Your task to perform on an android device: toggle notification dots Image 0: 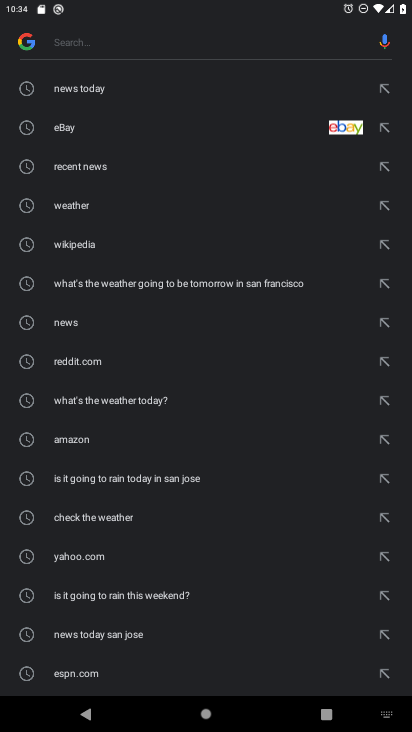
Step 0: press home button
Your task to perform on an android device: toggle notification dots Image 1: 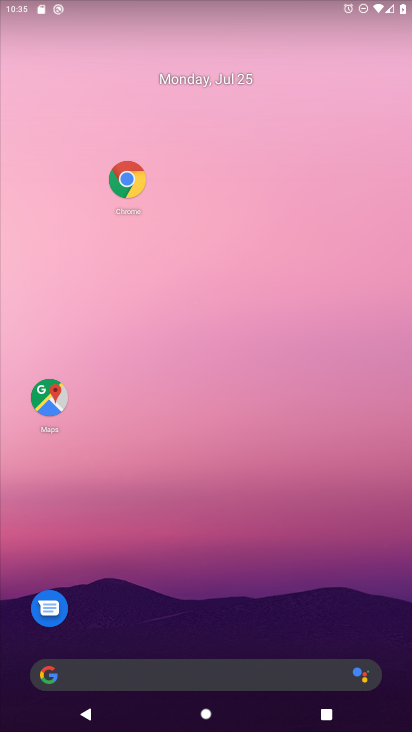
Step 1: drag from (114, 676) to (372, 12)
Your task to perform on an android device: toggle notification dots Image 2: 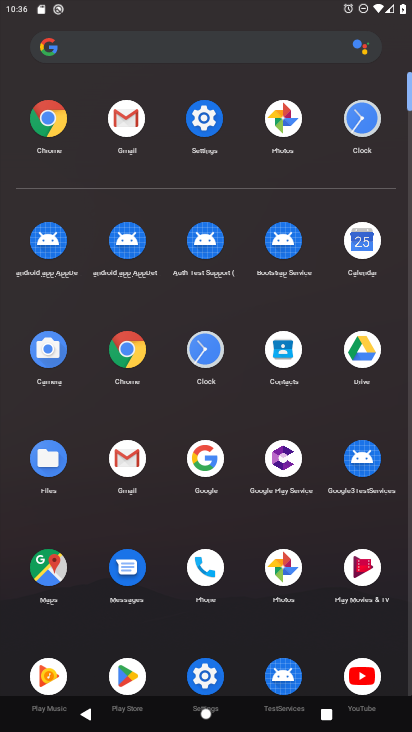
Step 2: click (205, 122)
Your task to perform on an android device: toggle notification dots Image 3: 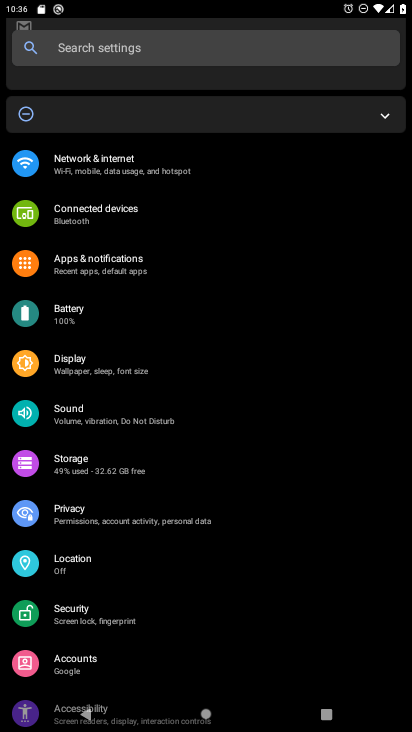
Step 3: click (161, 259)
Your task to perform on an android device: toggle notification dots Image 4: 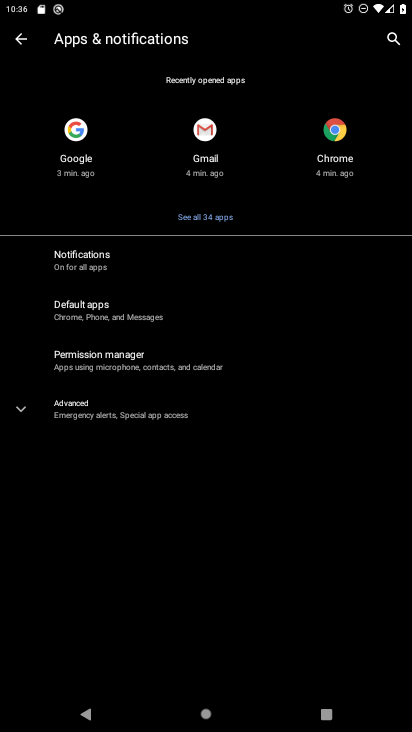
Step 4: click (131, 262)
Your task to perform on an android device: toggle notification dots Image 5: 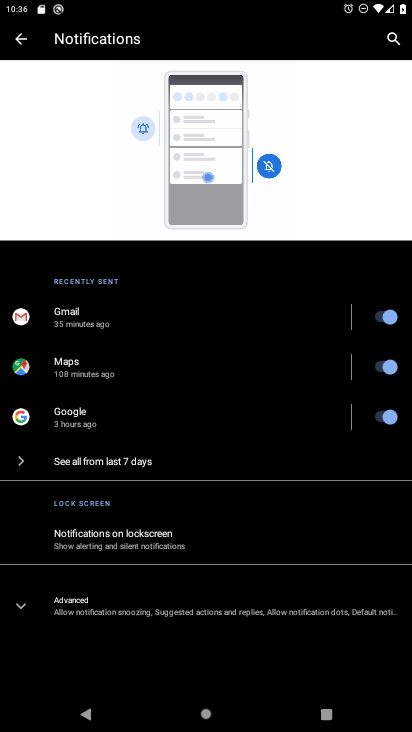
Step 5: click (226, 606)
Your task to perform on an android device: toggle notification dots Image 6: 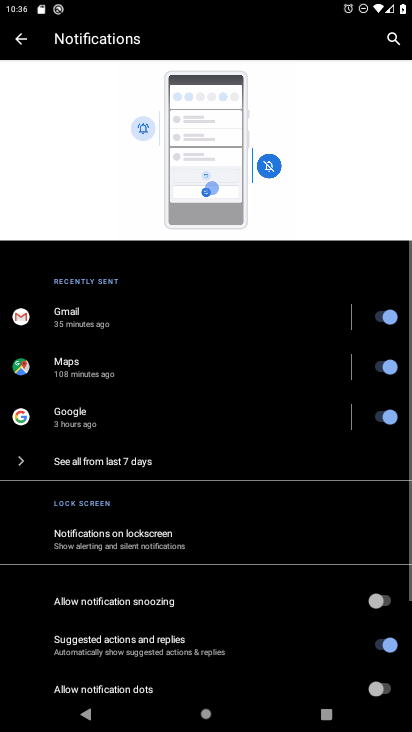
Step 6: drag from (318, 386) to (391, 48)
Your task to perform on an android device: toggle notification dots Image 7: 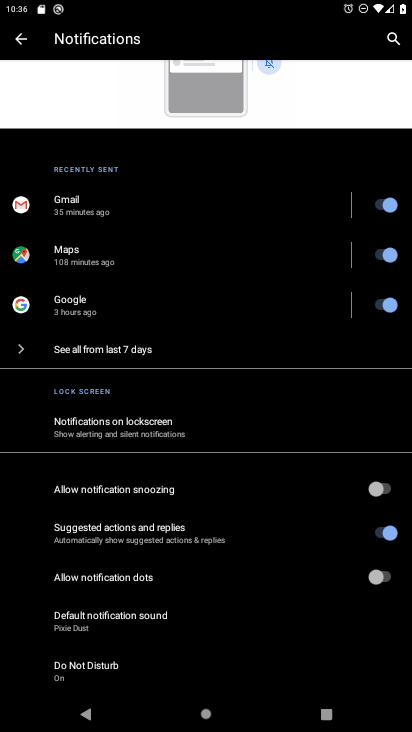
Step 7: click (382, 576)
Your task to perform on an android device: toggle notification dots Image 8: 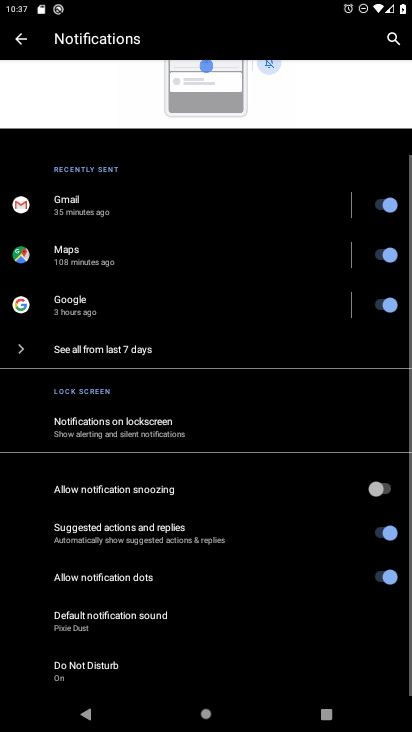
Step 8: task complete